Your task to perform on an android device: find photos in the google photos app Image 0: 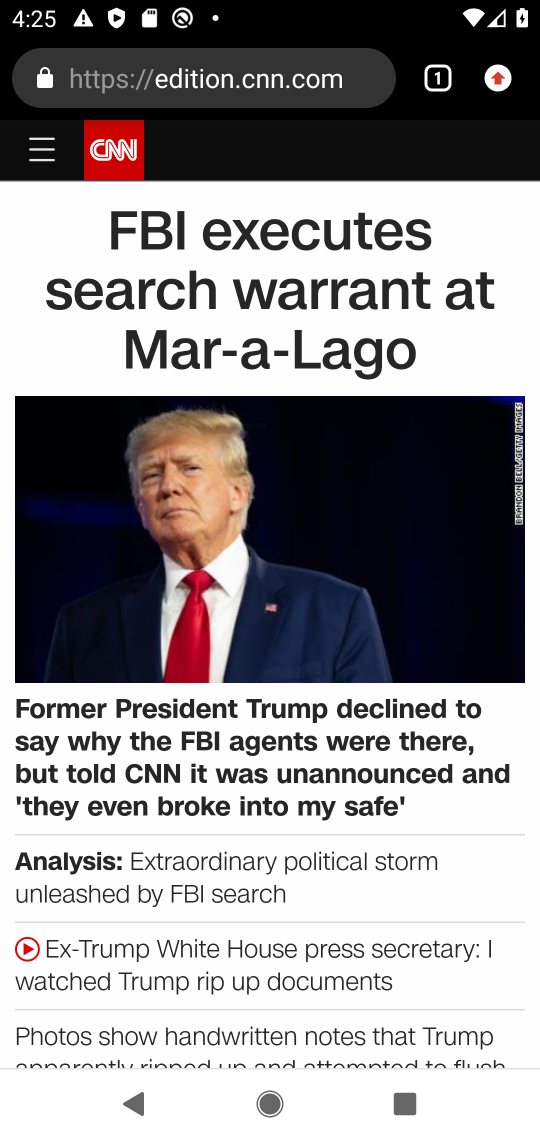
Step 0: press home button
Your task to perform on an android device: find photos in the google photos app Image 1: 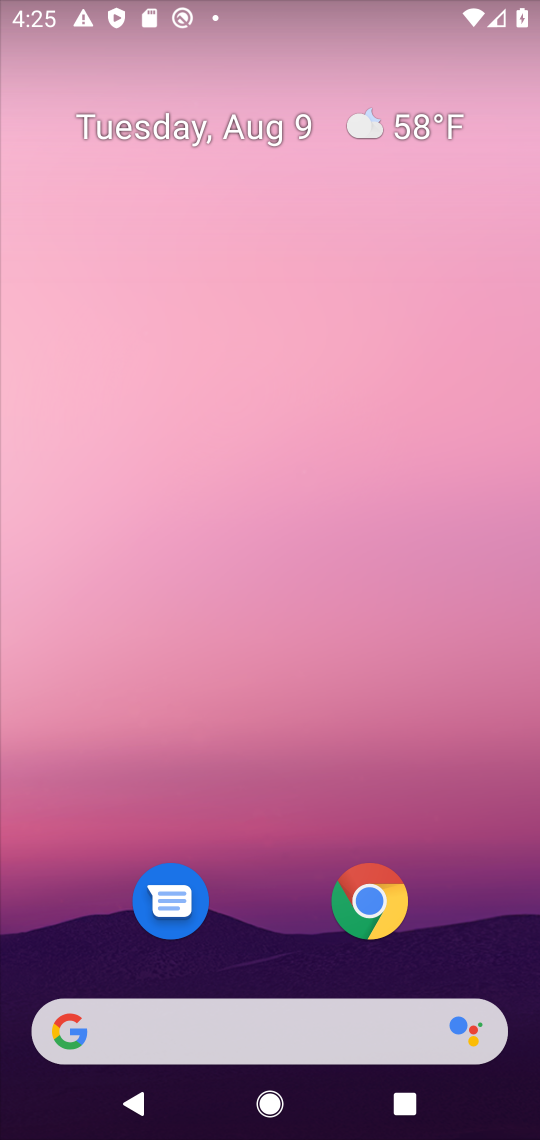
Step 1: drag from (312, 849) to (277, 25)
Your task to perform on an android device: find photos in the google photos app Image 2: 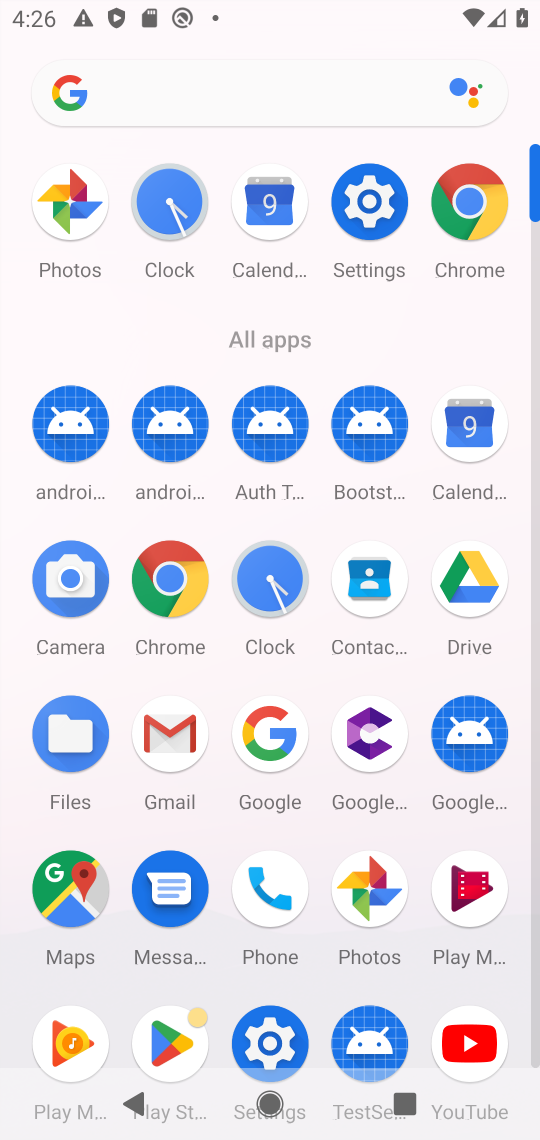
Step 2: click (372, 906)
Your task to perform on an android device: find photos in the google photos app Image 3: 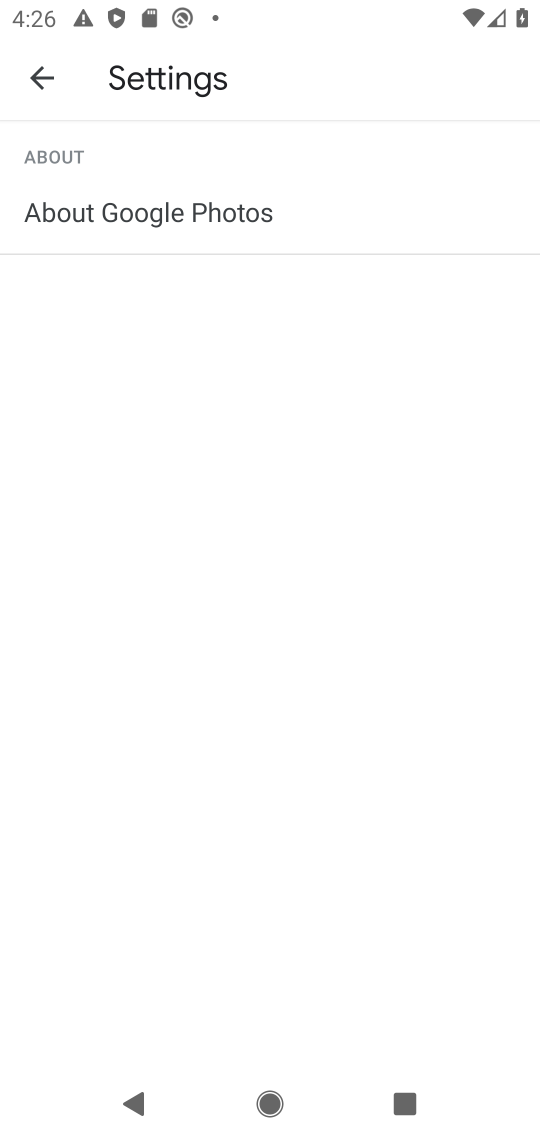
Step 3: click (52, 74)
Your task to perform on an android device: find photos in the google photos app Image 4: 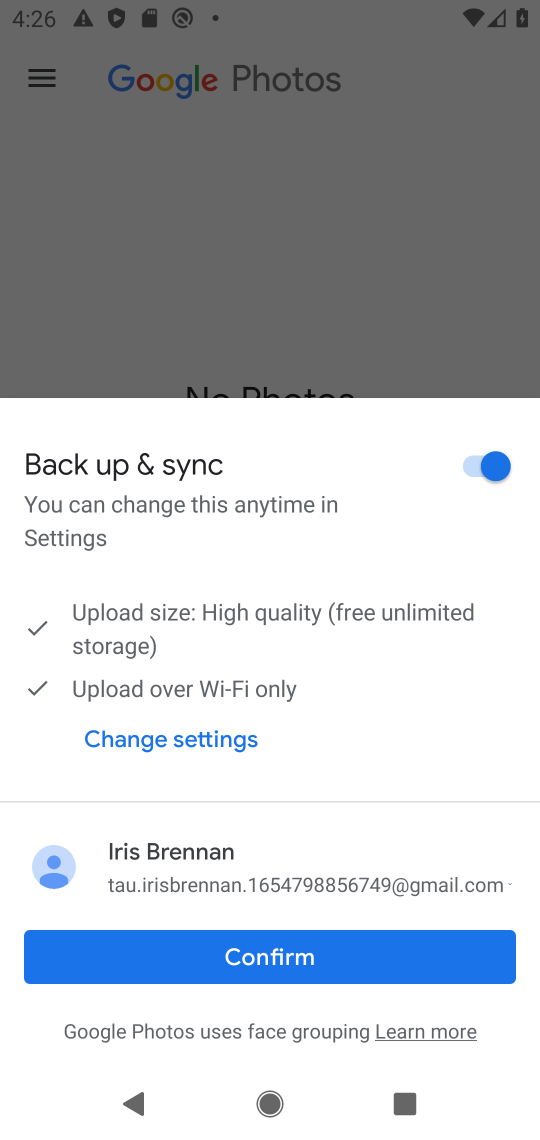
Step 4: click (229, 983)
Your task to perform on an android device: find photos in the google photos app Image 5: 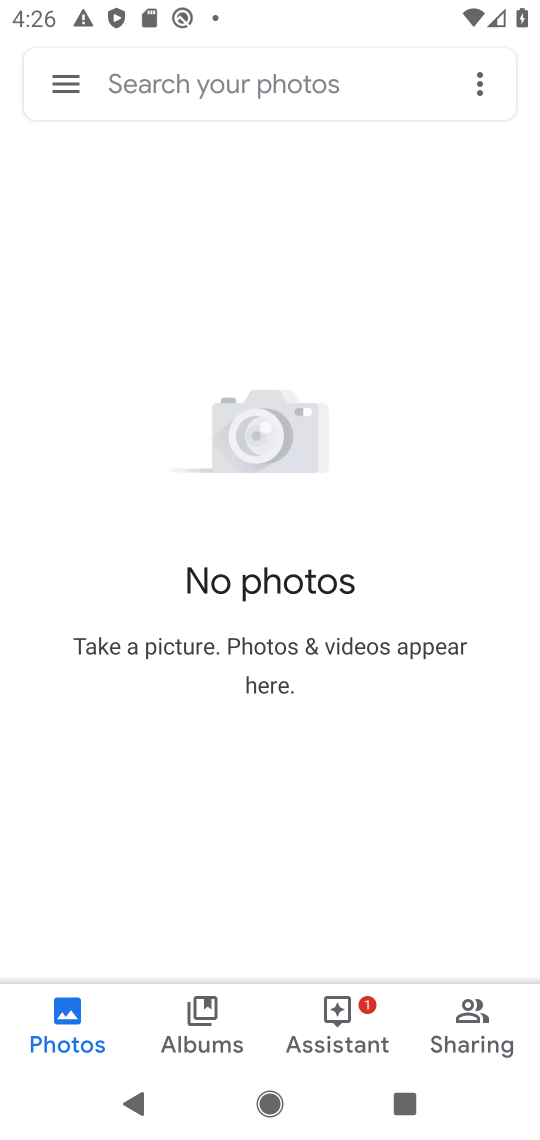
Step 5: task complete